Your task to perform on an android device: What's on my calendar today? Image 0: 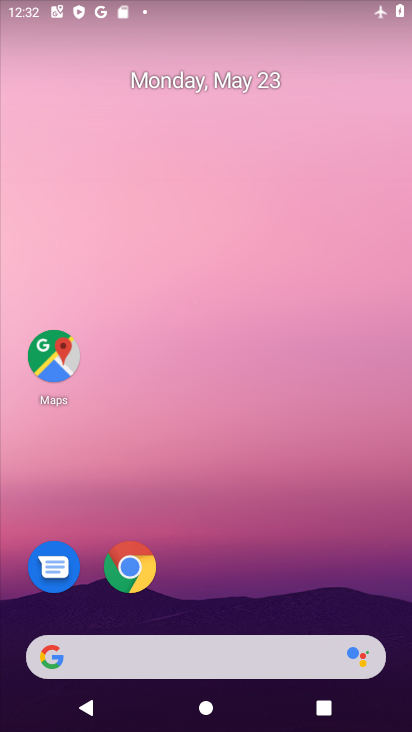
Step 0: drag from (359, 6) to (348, 374)
Your task to perform on an android device: What's on my calendar today? Image 1: 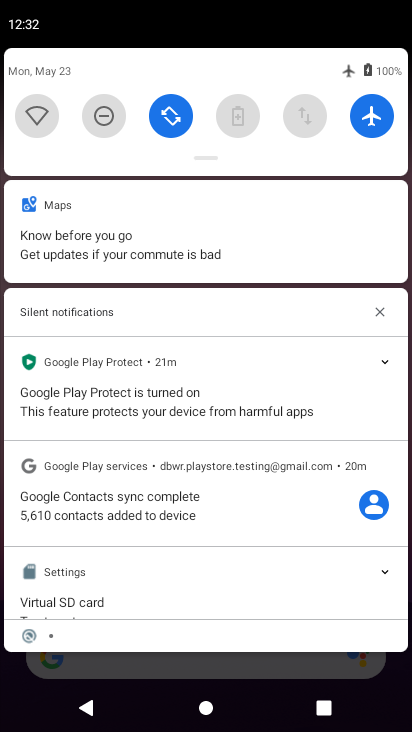
Step 1: click (367, 116)
Your task to perform on an android device: What's on my calendar today? Image 2: 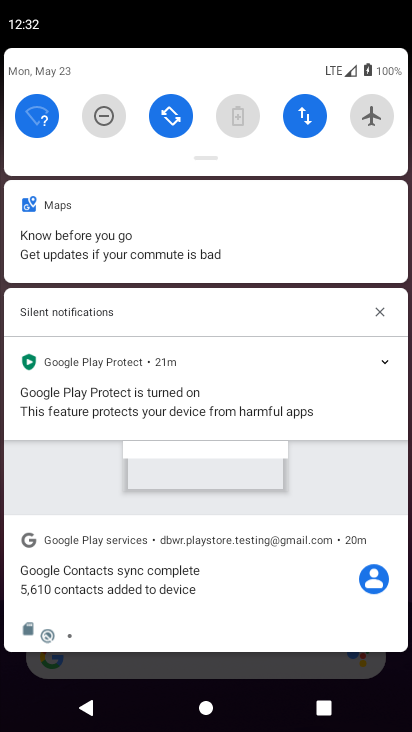
Step 2: press home button
Your task to perform on an android device: What's on my calendar today? Image 3: 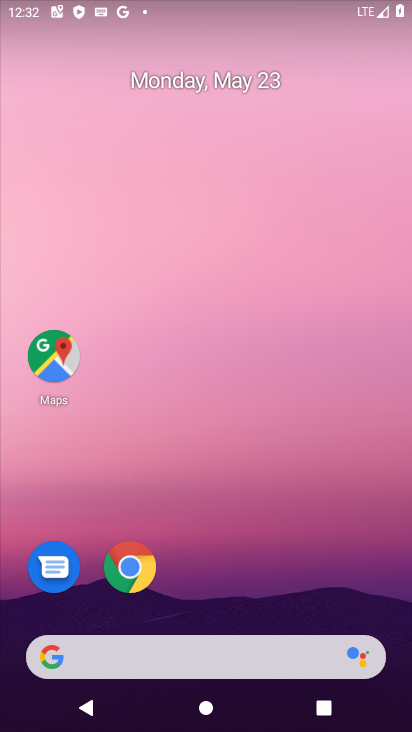
Step 3: press back button
Your task to perform on an android device: What's on my calendar today? Image 4: 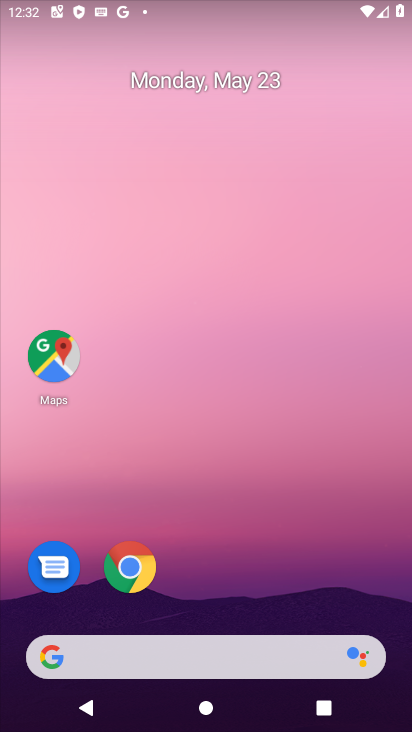
Step 4: drag from (286, 595) to (216, 293)
Your task to perform on an android device: What's on my calendar today? Image 5: 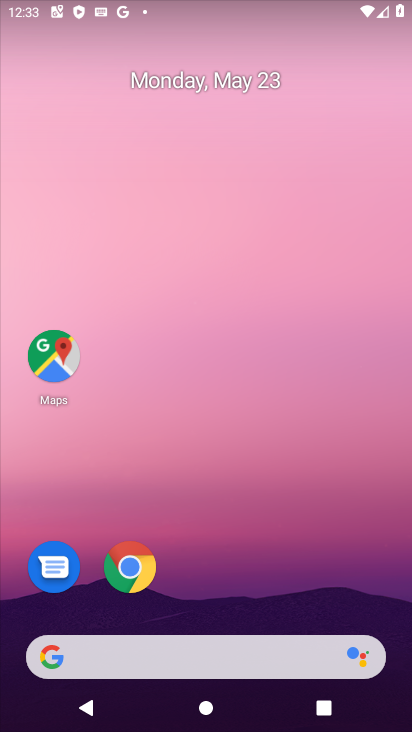
Step 5: drag from (239, 599) to (233, 103)
Your task to perform on an android device: What's on my calendar today? Image 6: 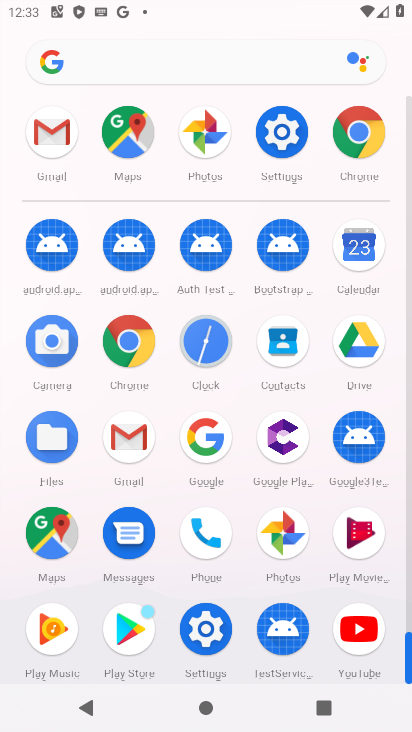
Step 6: click (372, 257)
Your task to perform on an android device: What's on my calendar today? Image 7: 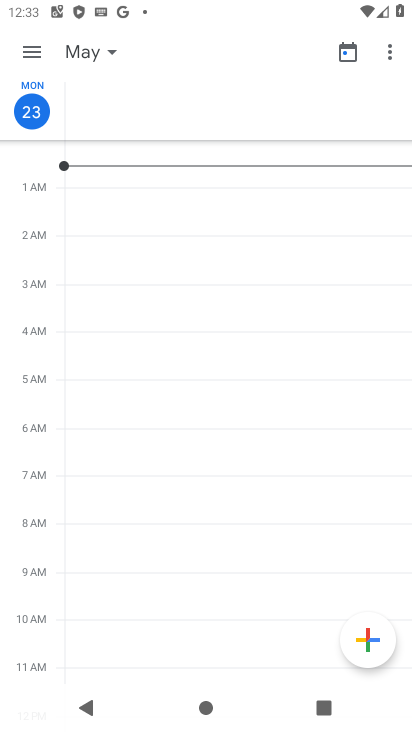
Step 7: task complete